Your task to perform on an android device: Go to calendar. Show me events next week Image 0: 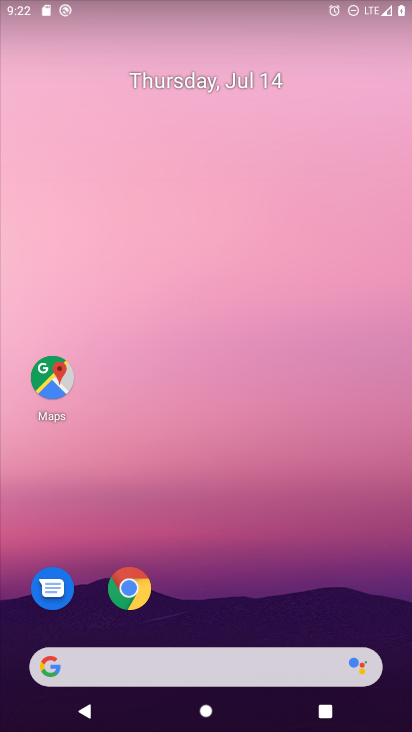
Step 0: drag from (297, 508) to (263, 31)
Your task to perform on an android device: Go to calendar. Show me events next week Image 1: 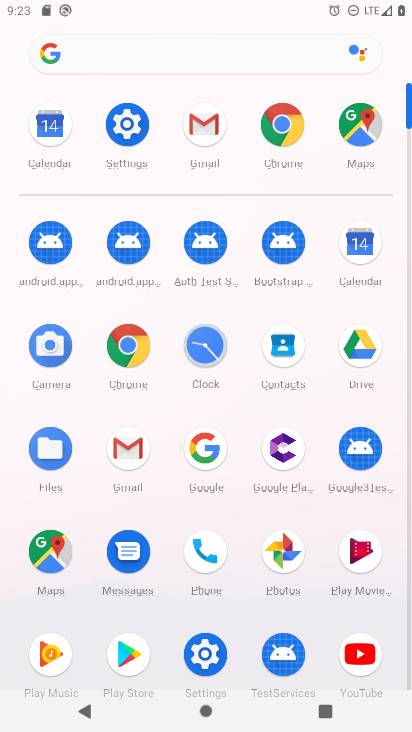
Step 1: click (358, 257)
Your task to perform on an android device: Go to calendar. Show me events next week Image 2: 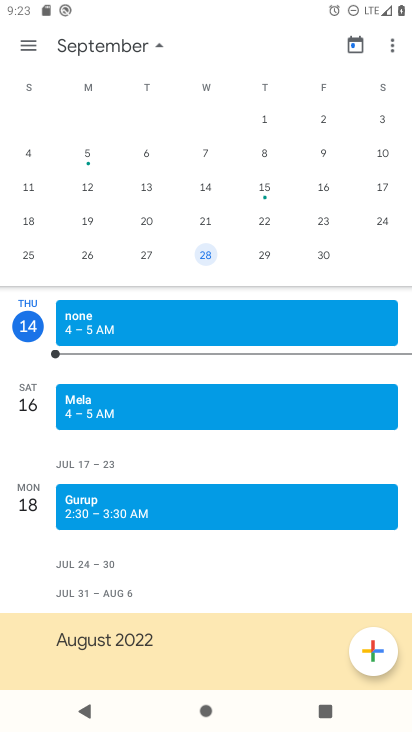
Step 2: drag from (285, 231) to (0, 126)
Your task to perform on an android device: Go to calendar. Show me events next week Image 3: 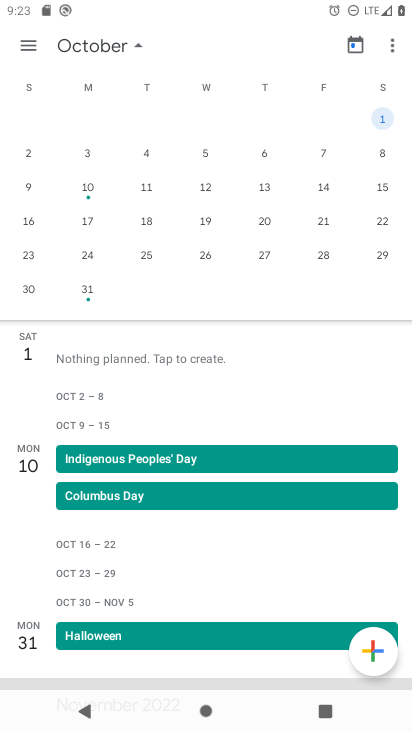
Step 3: click (320, 150)
Your task to perform on an android device: Go to calendar. Show me events next week Image 4: 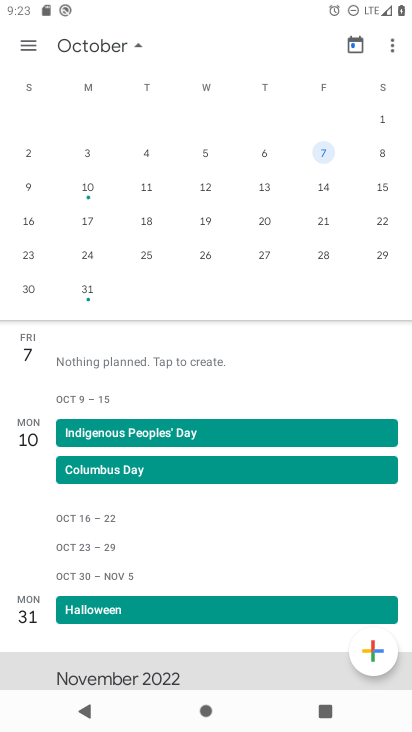
Step 4: task complete